Your task to perform on an android device: Go to location settings Image 0: 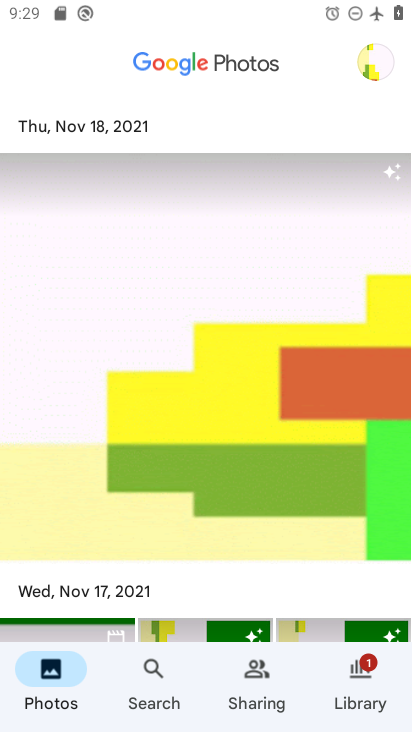
Step 0: press home button
Your task to perform on an android device: Go to location settings Image 1: 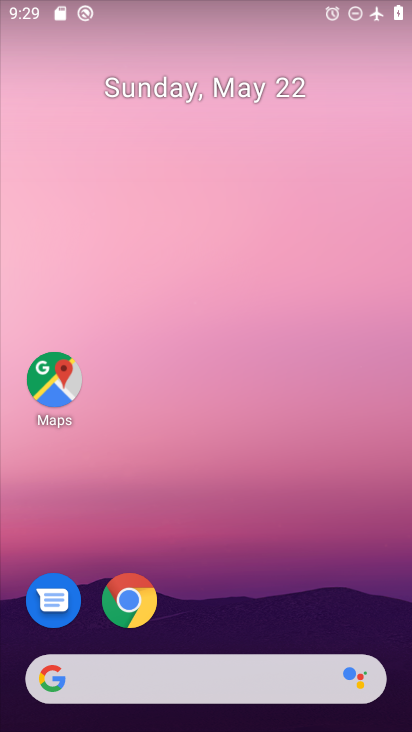
Step 1: drag from (239, 647) to (296, 177)
Your task to perform on an android device: Go to location settings Image 2: 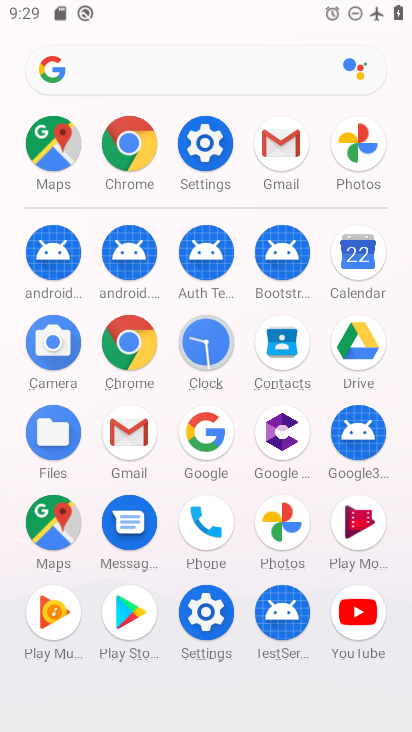
Step 2: click (231, 161)
Your task to perform on an android device: Go to location settings Image 3: 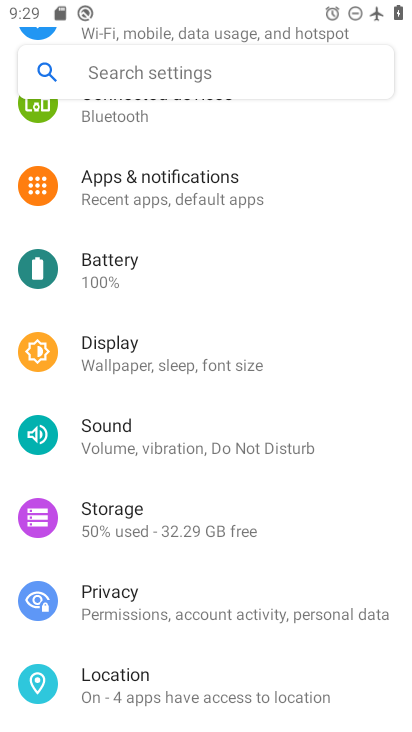
Step 3: drag from (186, 422) to (183, 649)
Your task to perform on an android device: Go to location settings Image 4: 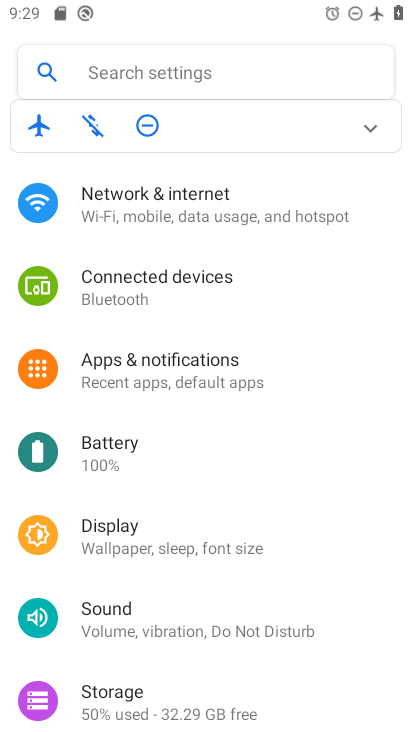
Step 4: drag from (202, 537) to (313, 4)
Your task to perform on an android device: Go to location settings Image 5: 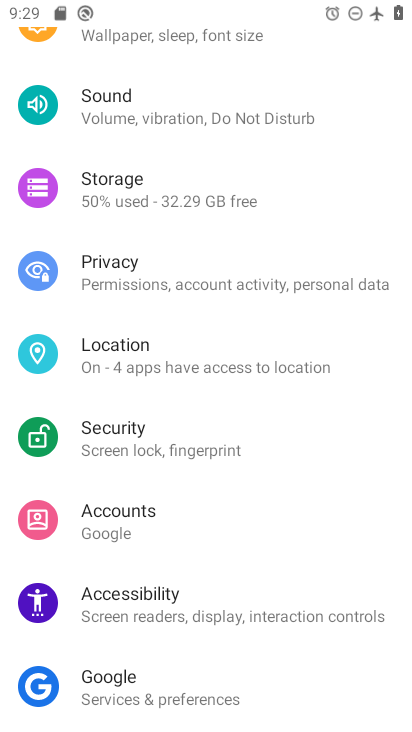
Step 5: drag from (230, 599) to (255, 235)
Your task to perform on an android device: Go to location settings Image 6: 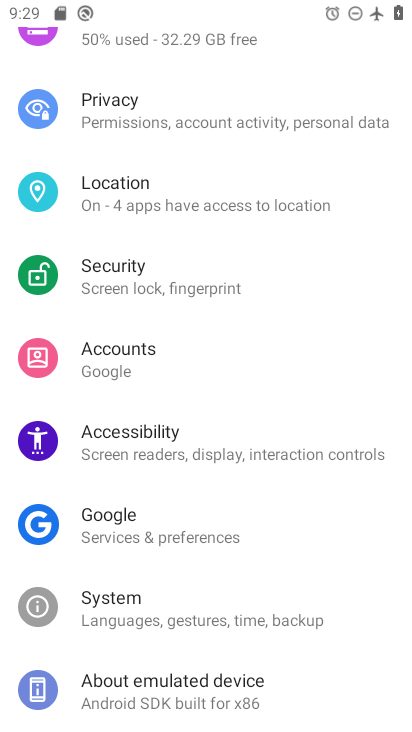
Step 6: click (224, 213)
Your task to perform on an android device: Go to location settings Image 7: 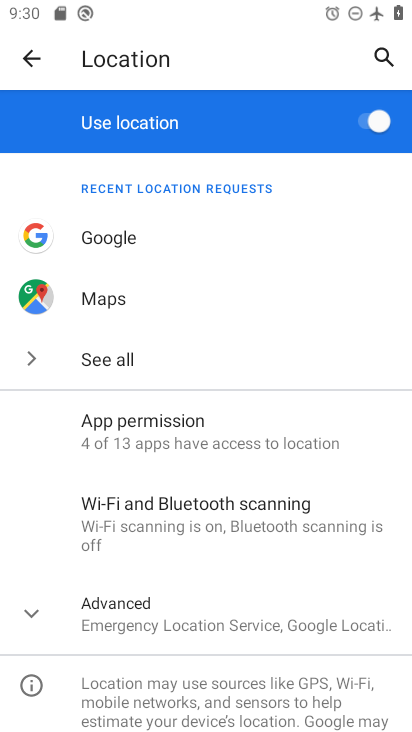
Step 7: task complete